Your task to perform on an android device: set default search engine in the chrome app Image 0: 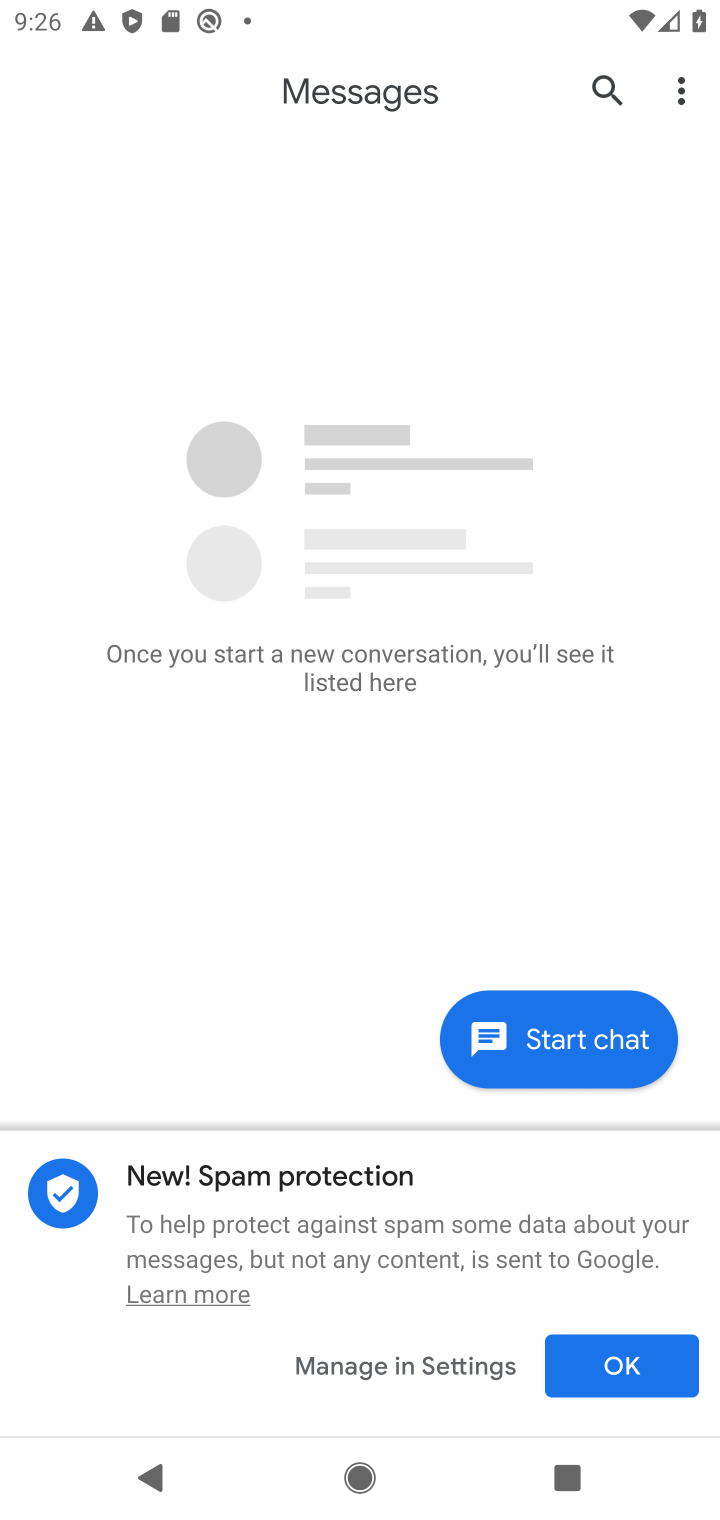
Step 0: press home button
Your task to perform on an android device: set default search engine in the chrome app Image 1: 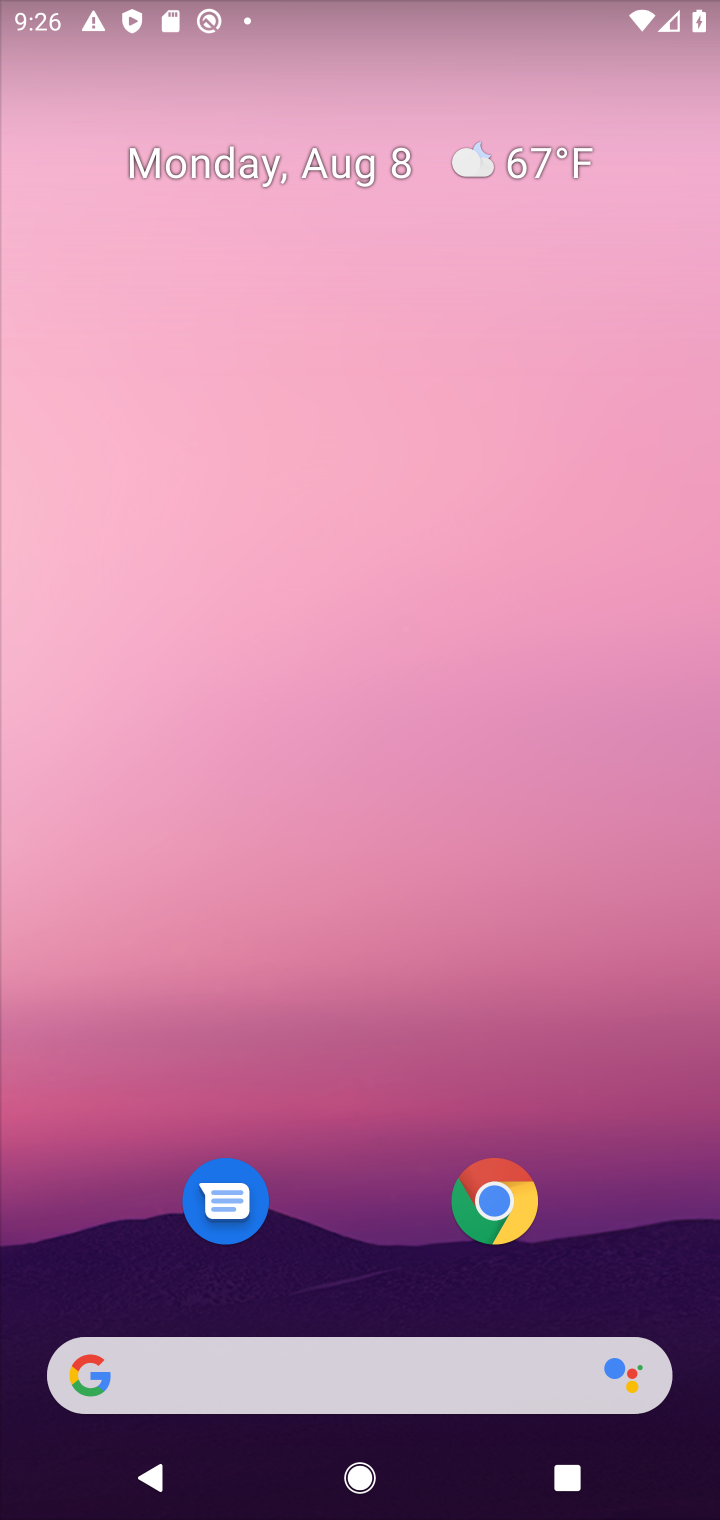
Step 1: press home button
Your task to perform on an android device: set default search engine in the chrome app Image 2: 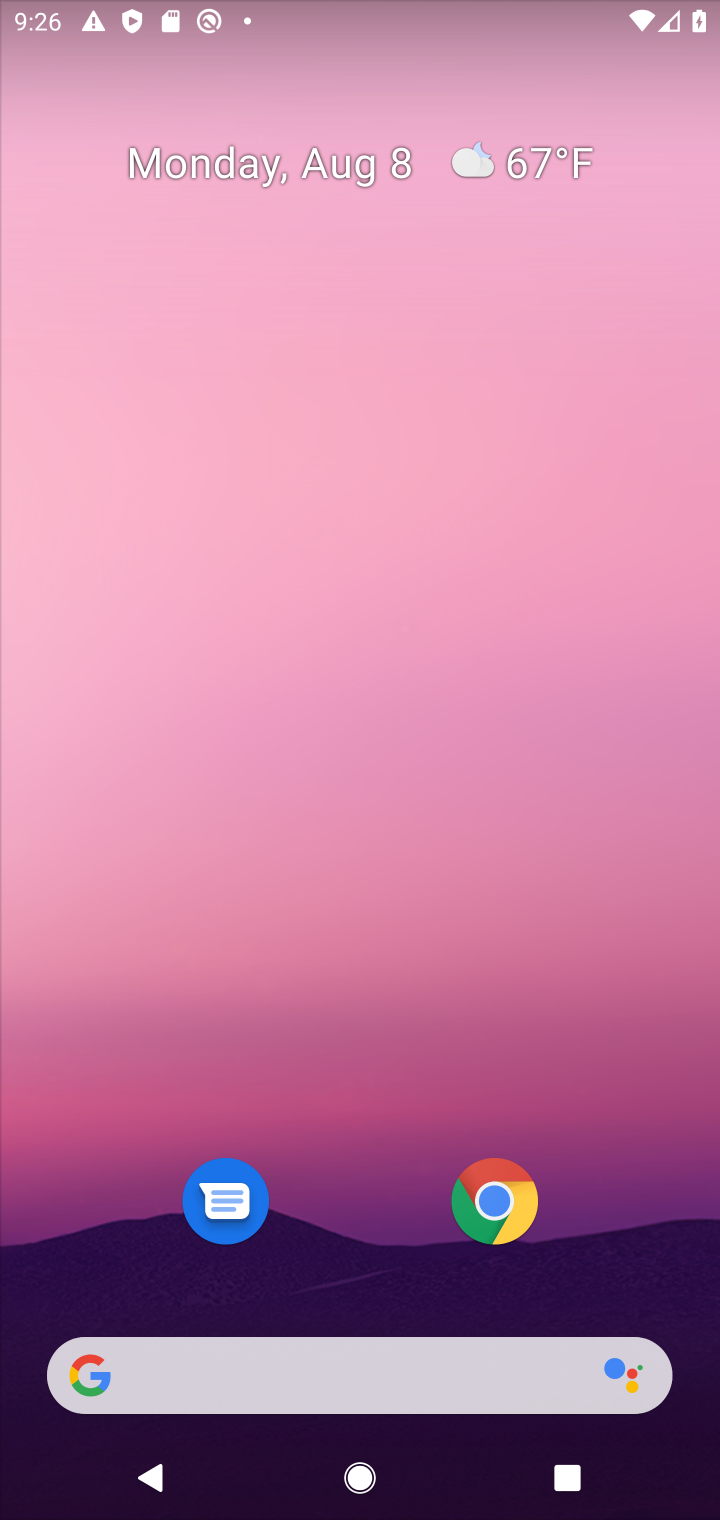
Step 2: drag from (341, 1125) to (406, 337)
Your task to perform on an android device: set default search engine in the chrome app Image 3: 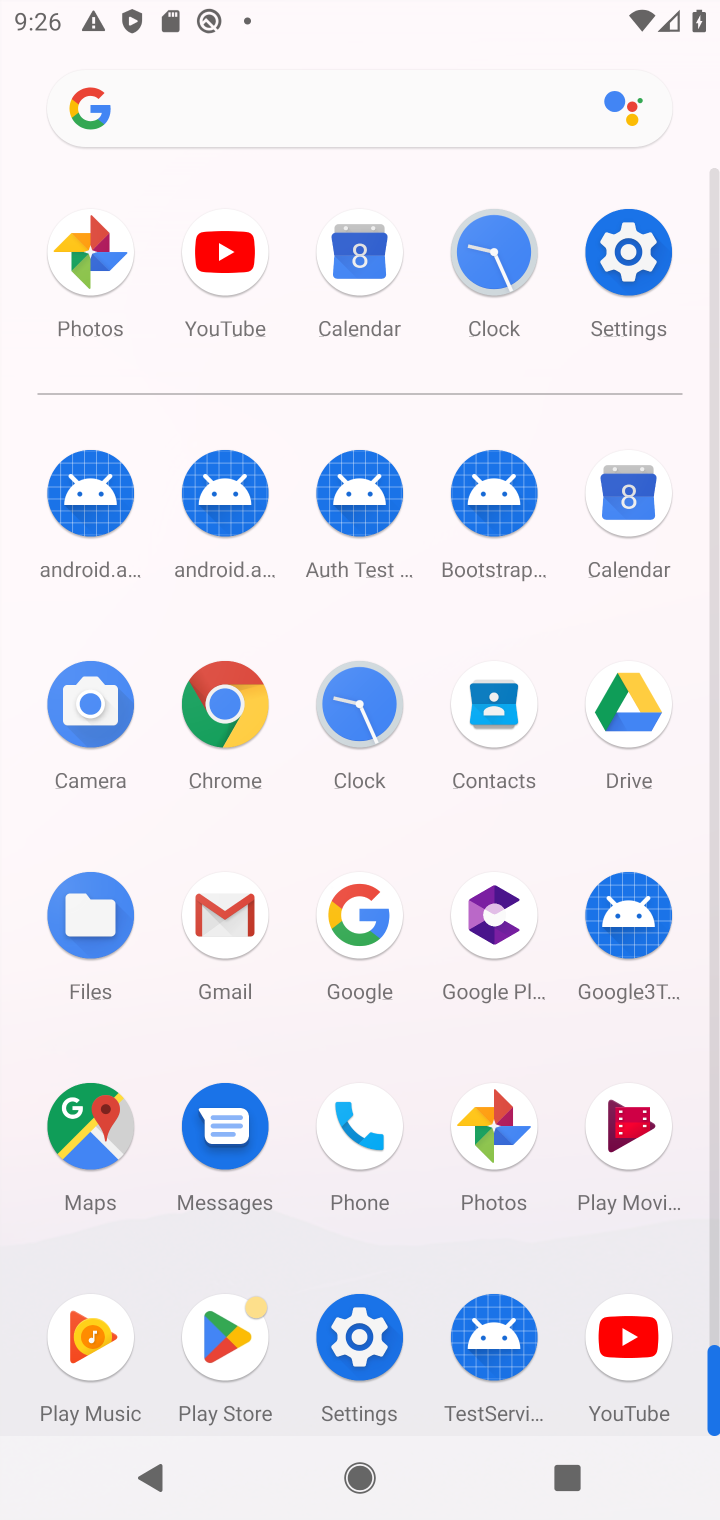
Step 3: click (222, 705)
Your task to perform on an android device: set default search engine in the chrome app Image 4: 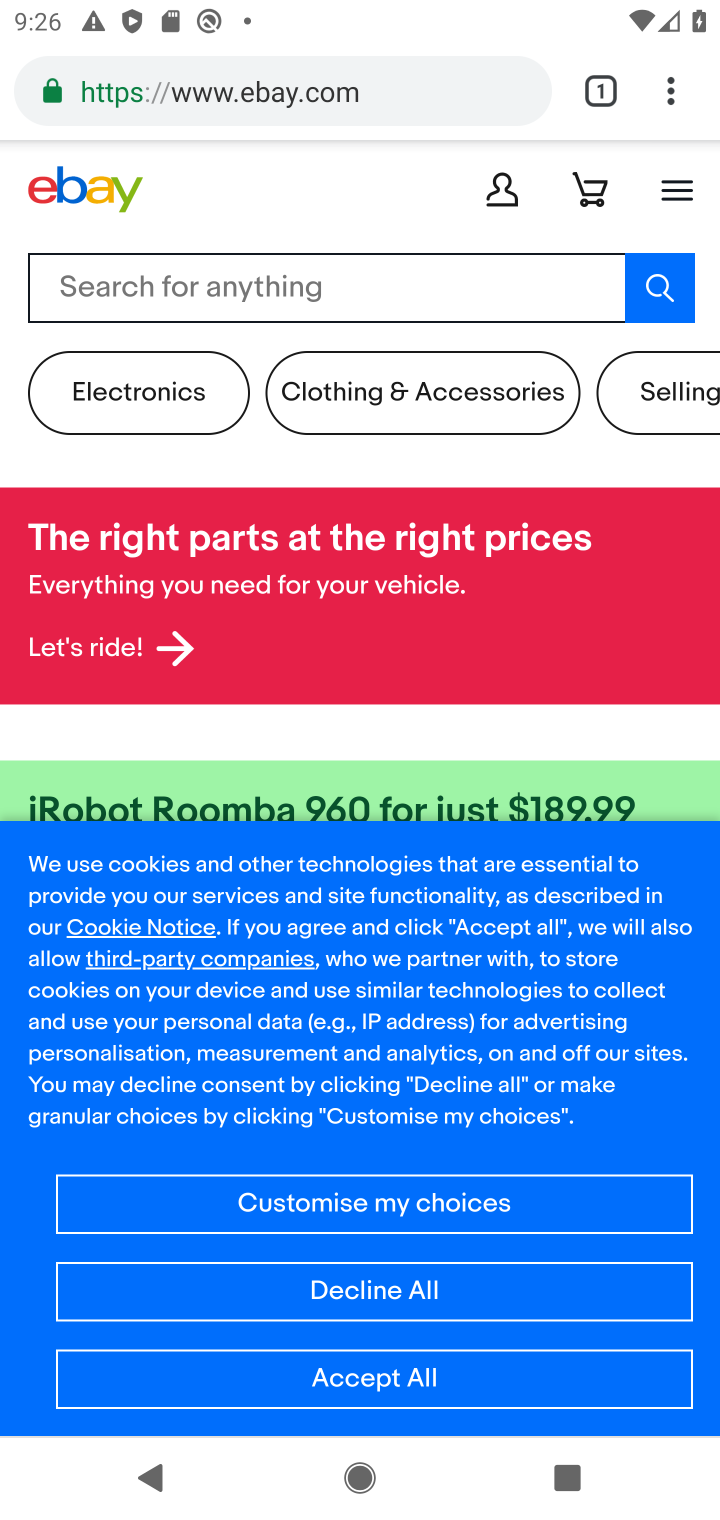
Step 4: click (672, 97)
Your task to perform on an android device: set default search engine in the chrome app Image 5: 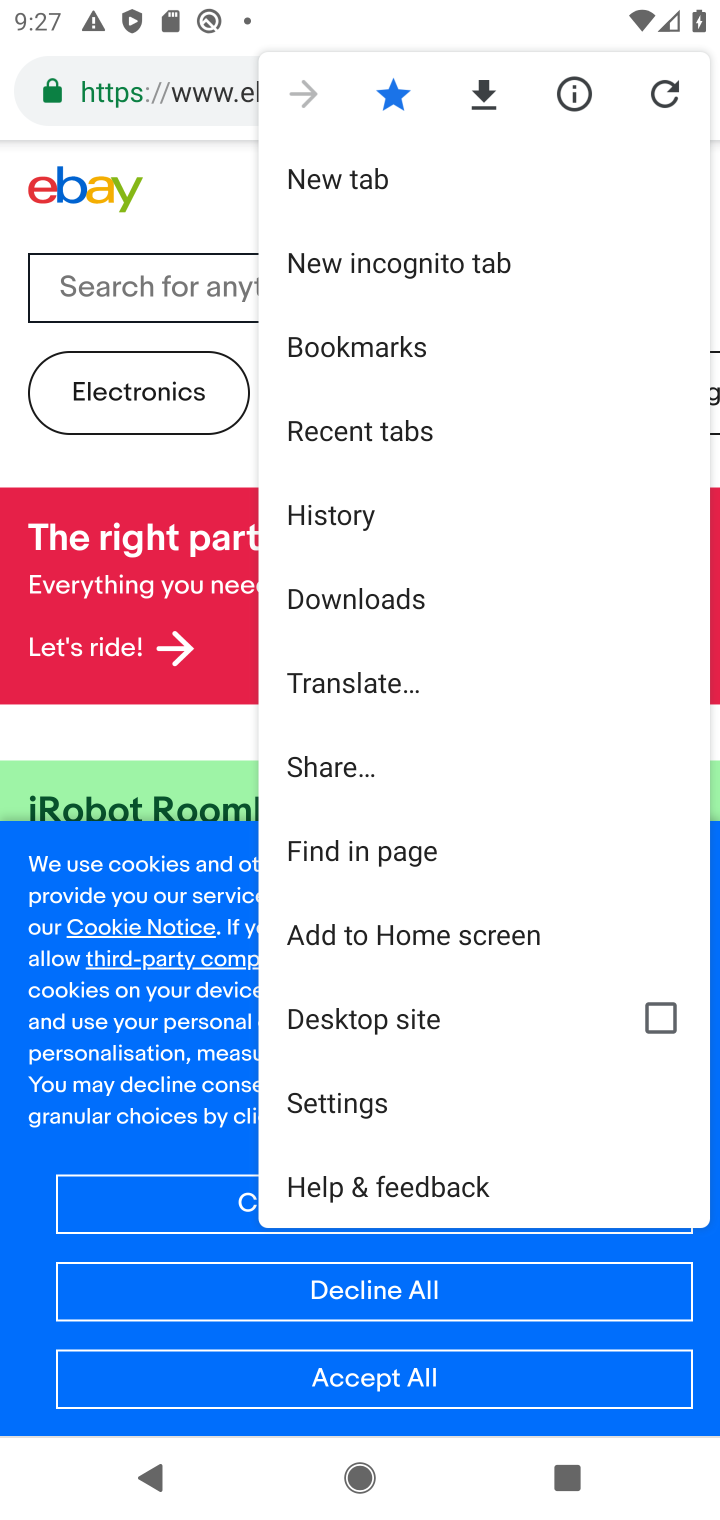
Step 5: click (357, 1101)
Your task to perform on an android device: set default search engine in the chrome app Image 6: 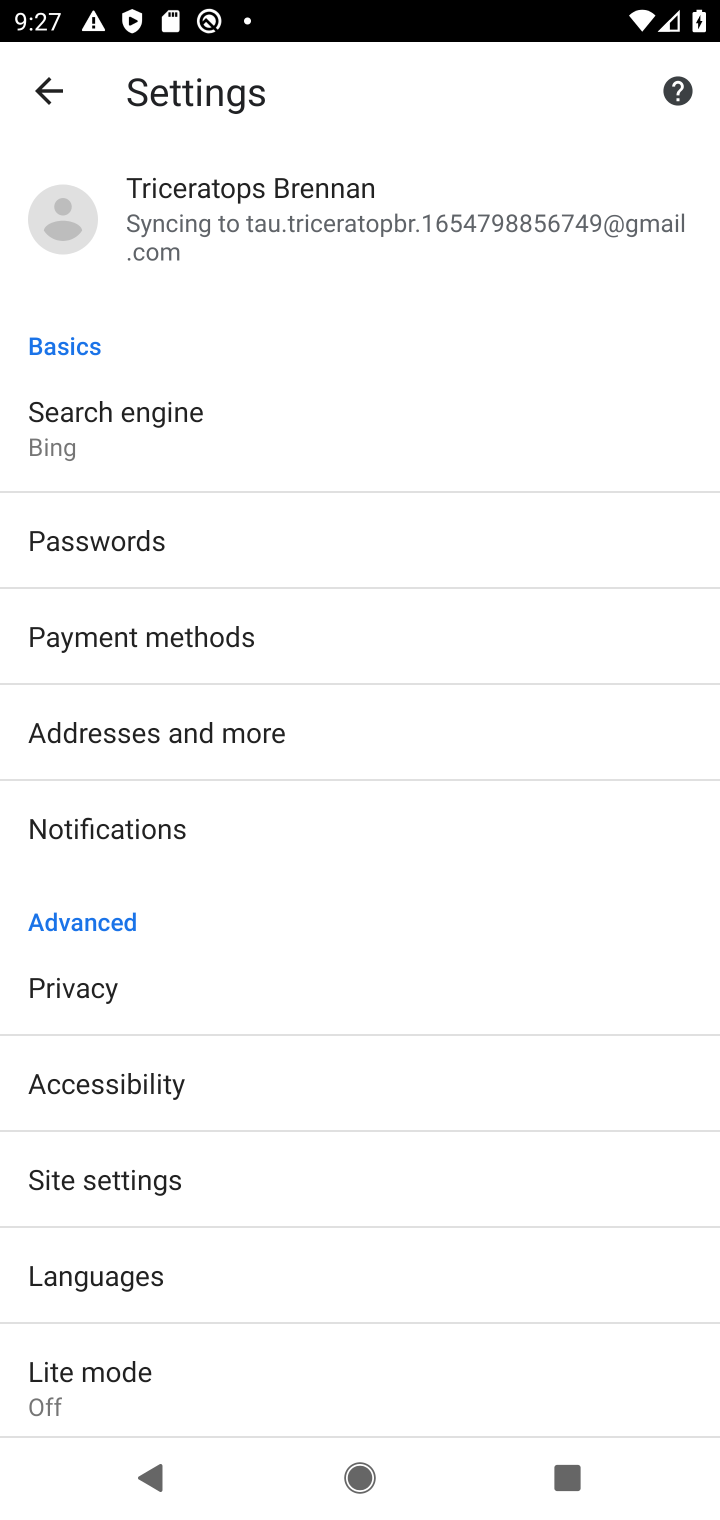
Step 6: drag from (504, 1092) to (516, 705)
Your task to perform on an android device: set default search engine in the chrome app Image 7: 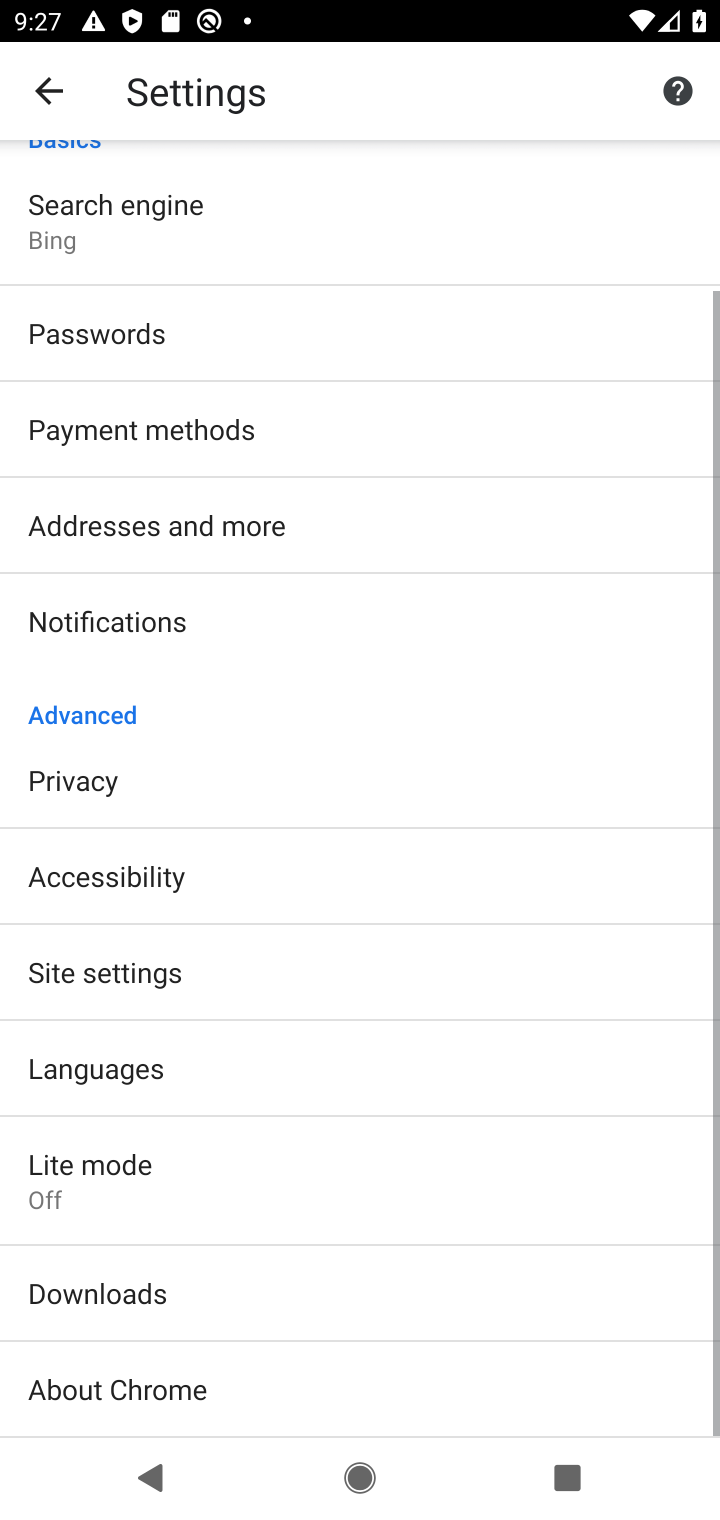
Step 7: drag from (421, 1022) to (484, 600)
Your task to perform on an android device: set default search engine in the chrome app Image 8: 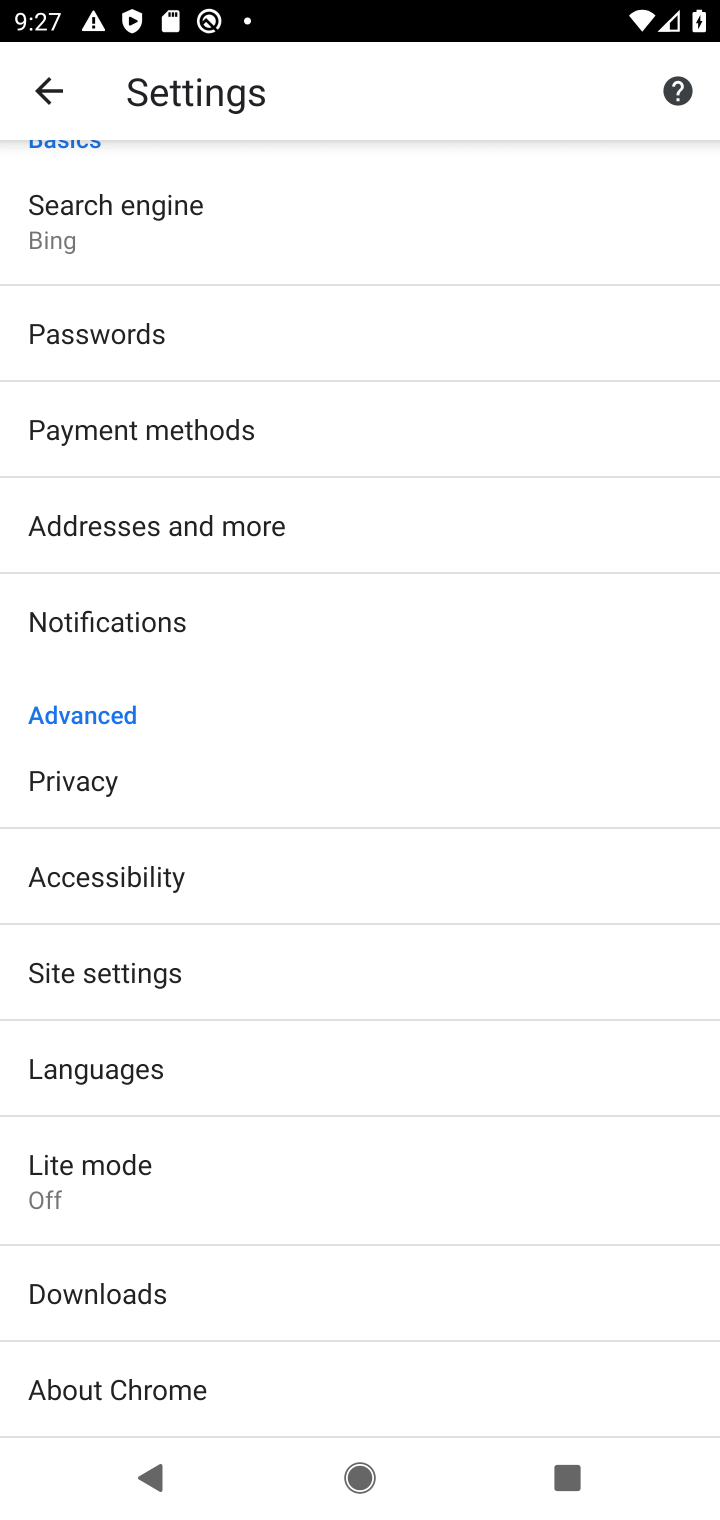
Step 8: drag from (550, 498) to (544, 679)
Your task to perform on an android device: set default search engine in the chrome app Image 9: 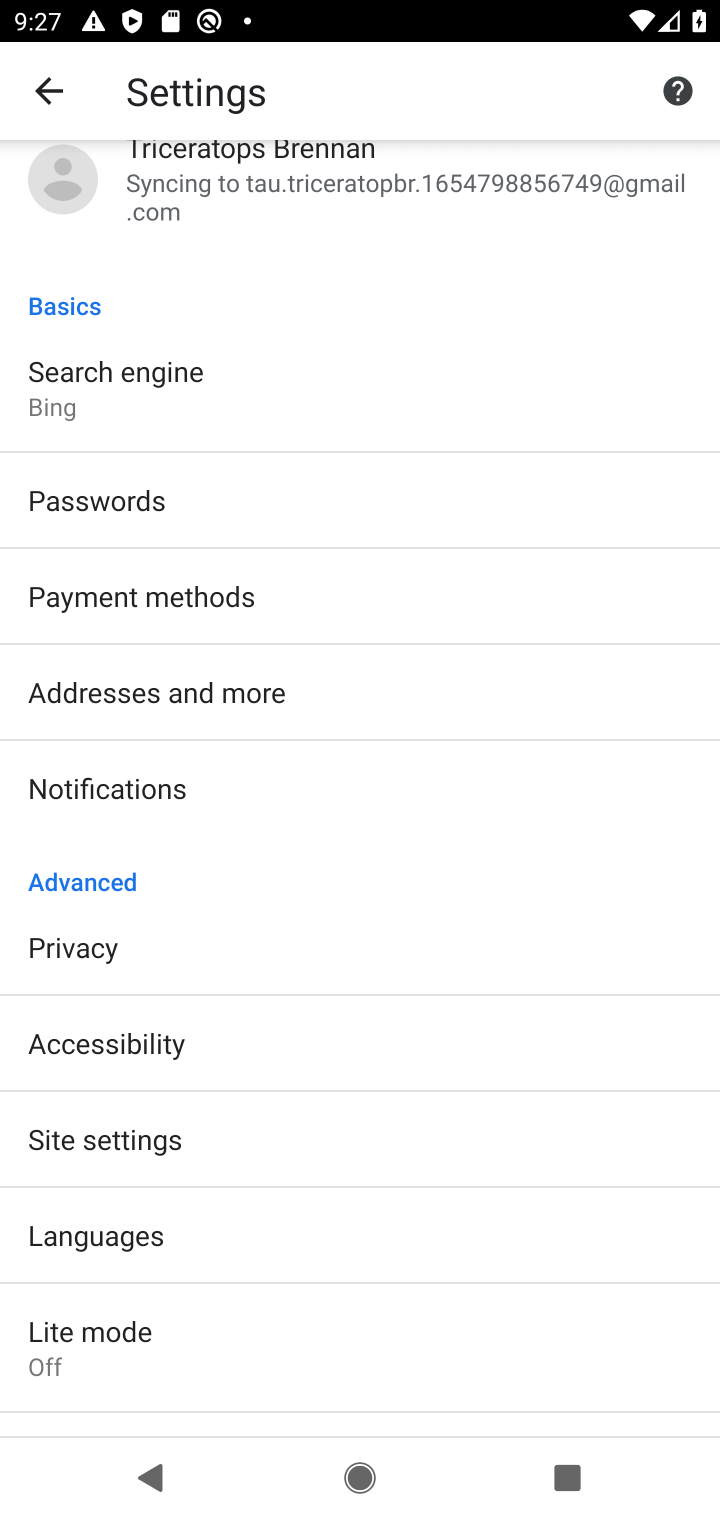
Step 9: drag from (544, 396) to (479, 732)
Your task to perform on an android device: set default search engine in the chrome app Image 10: 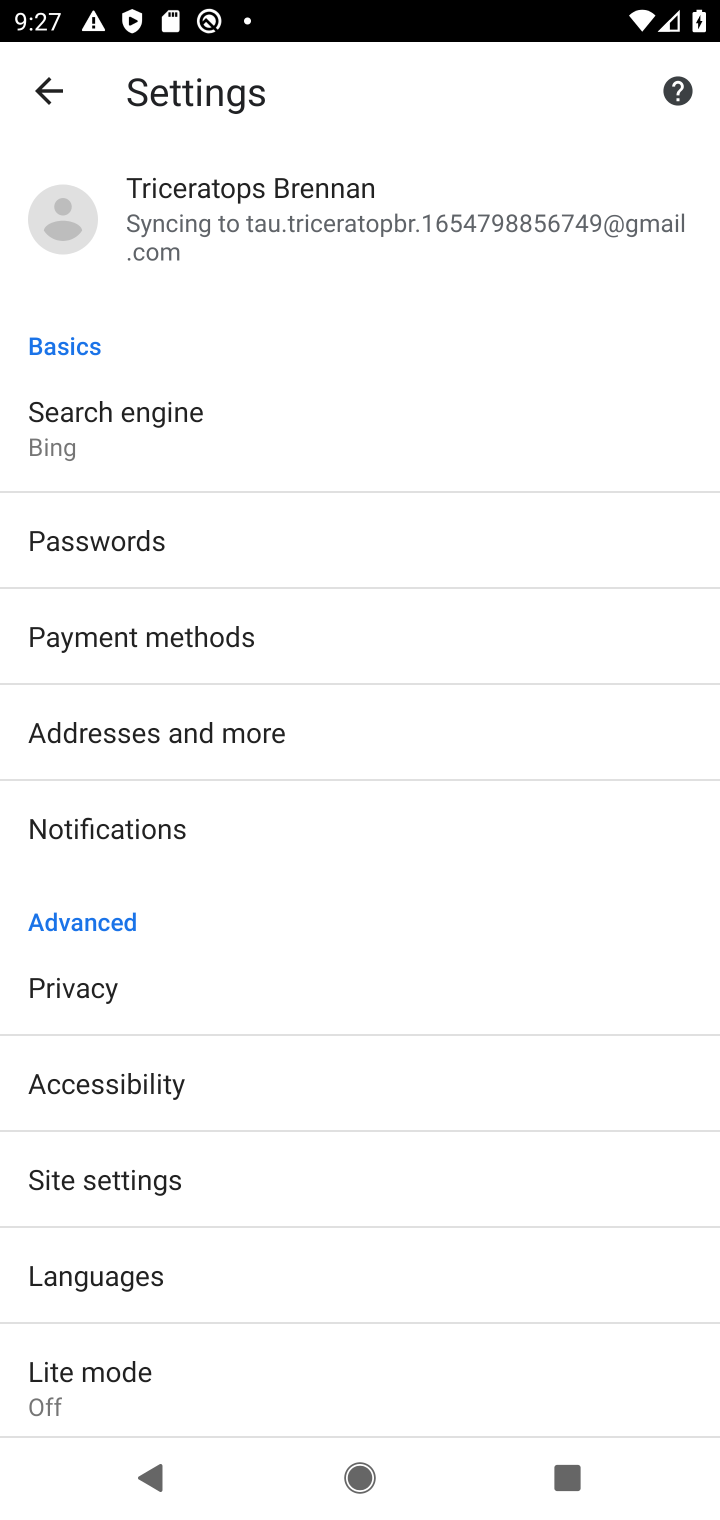
Step 10: click (160, 426)
Your task to perform on an android device: set default search engine in the chrome app Image 11: 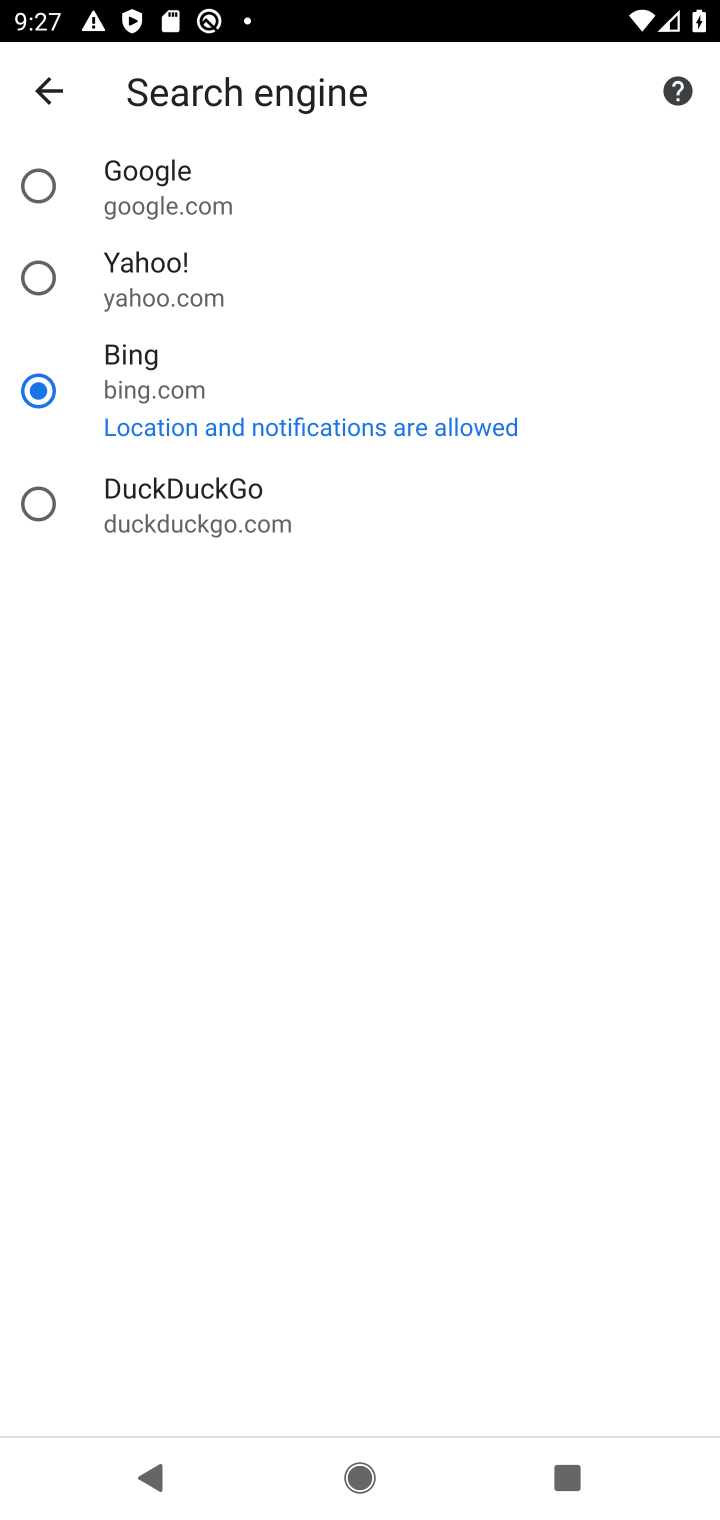
Step 11: click (42, 175)
Your task to perform on an android device: set default search engine in the chrome app Image 12: 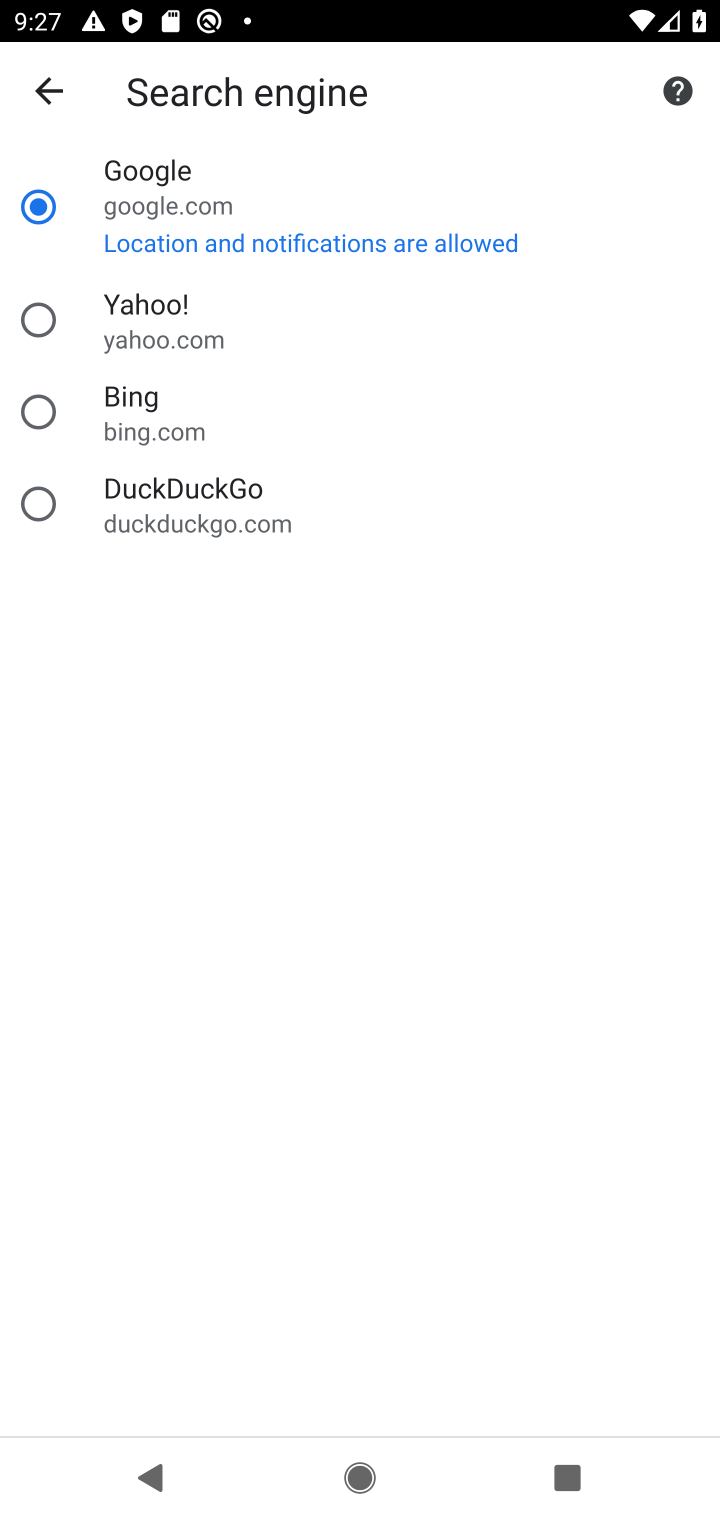
Step 12: task complete